Your task to perform on an android device: set an alarm Image 0: 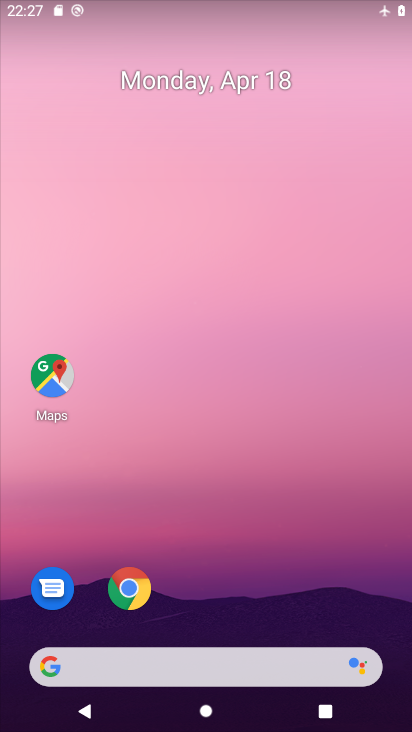
Step 0: drag from (261, 611) to (282, 7)
Your task to perform on an android device: set an alarm Image 1: 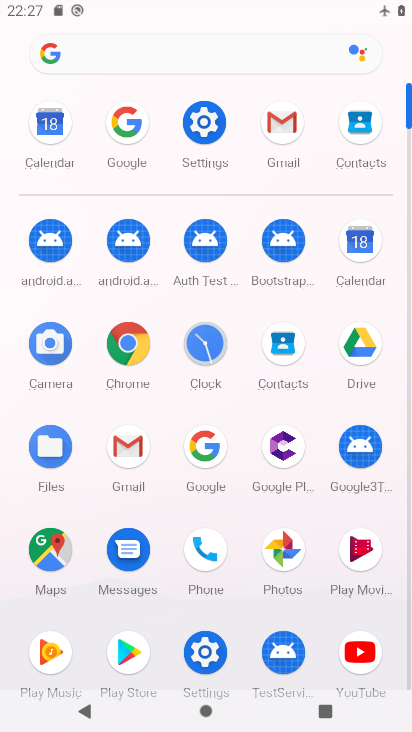
Step 1: click (212, 339)
Your task to perform on an android device: set an alarm Image 2: 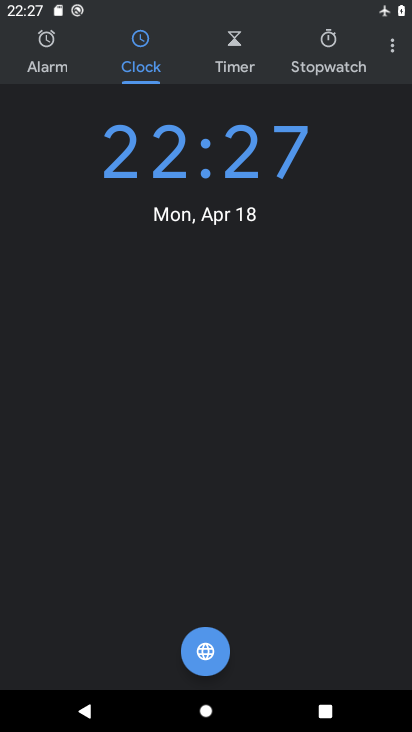
Step 2: click (54, 60)
Your task to perform on an android device: set an alarm Image 3: 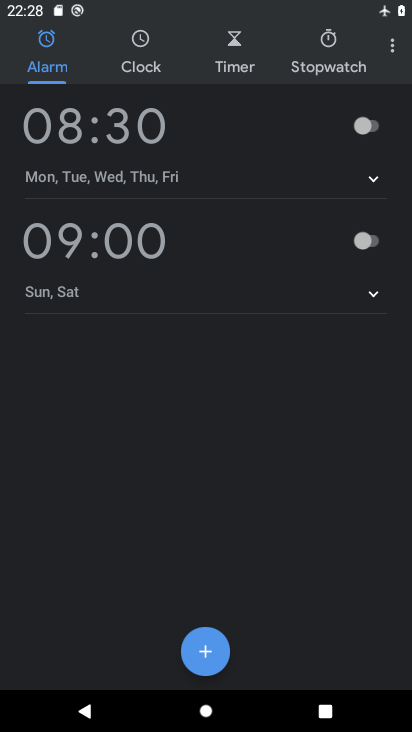
Step 3: click (198, 641)
Your task to perform on an android device: set an alarm Image 4: 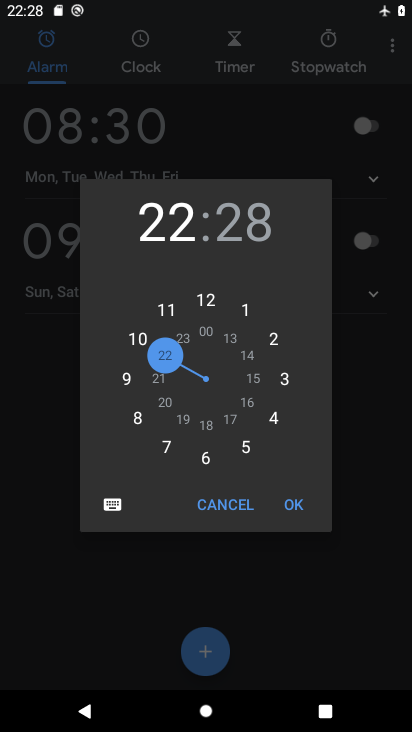
Step 4: click (287, 502)
Your task to perform on an android device: set an alarm Image 5: 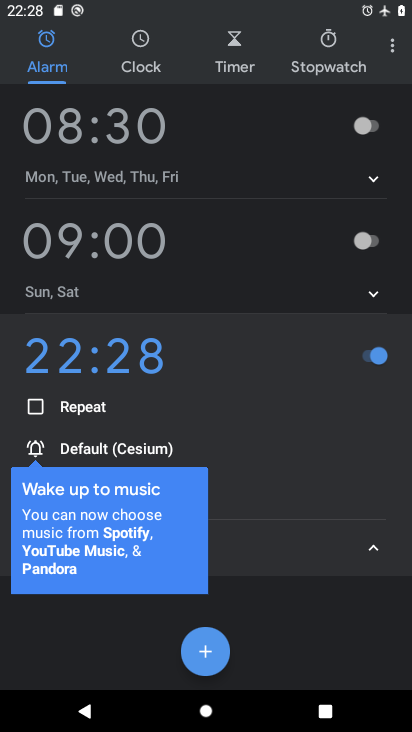
Step 5: click (377, 549)
Your task to perform on an android device: set an alarm Image 6: 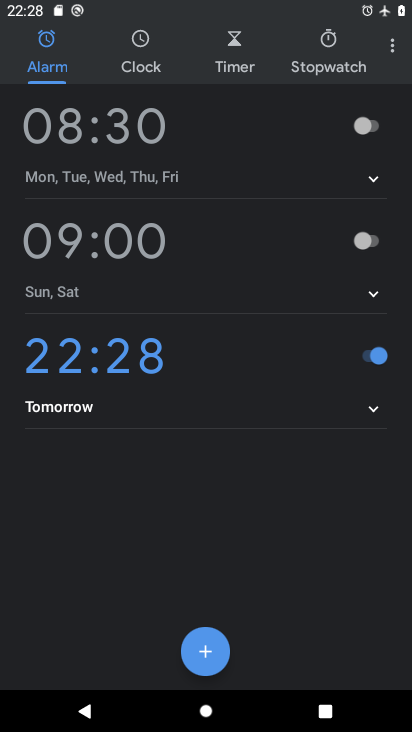
Step 6: task complete